Your task to perform on an android device: Go to Google maps Image 0: 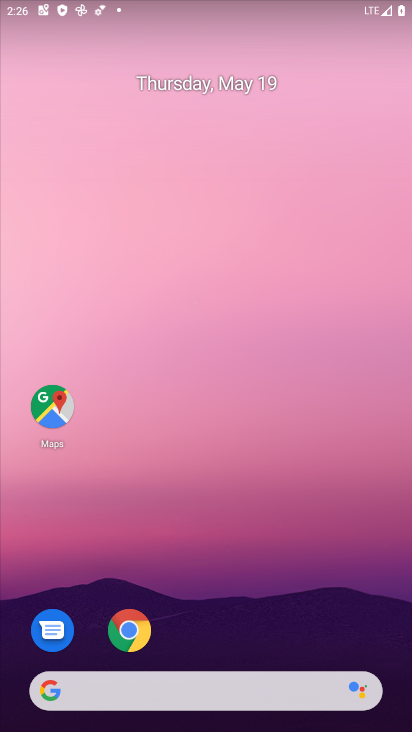
Step 0: click (53, 401)
Your task to perform on an android device: Go to Google maps Image 1: 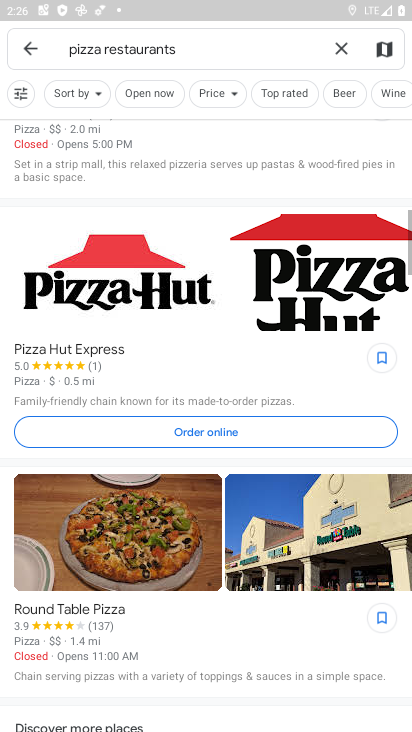
Step 1: click (338, 52)
Your task to perform on an android device: Go to Google maps Image 2: 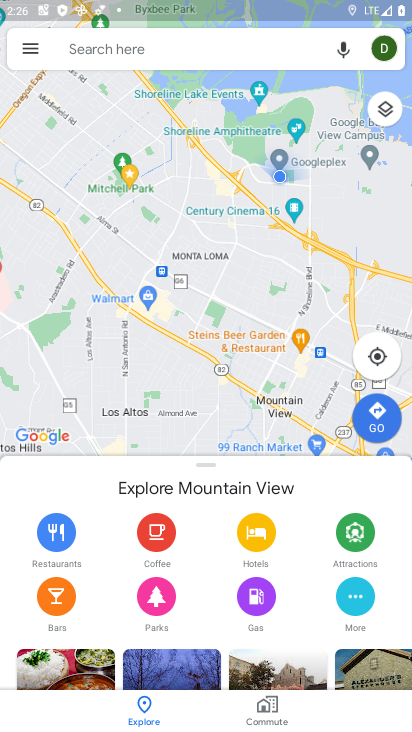
Step 2: task complete